Your task to perform on an android device: Open the calendar and show me this week's events? Image 0: 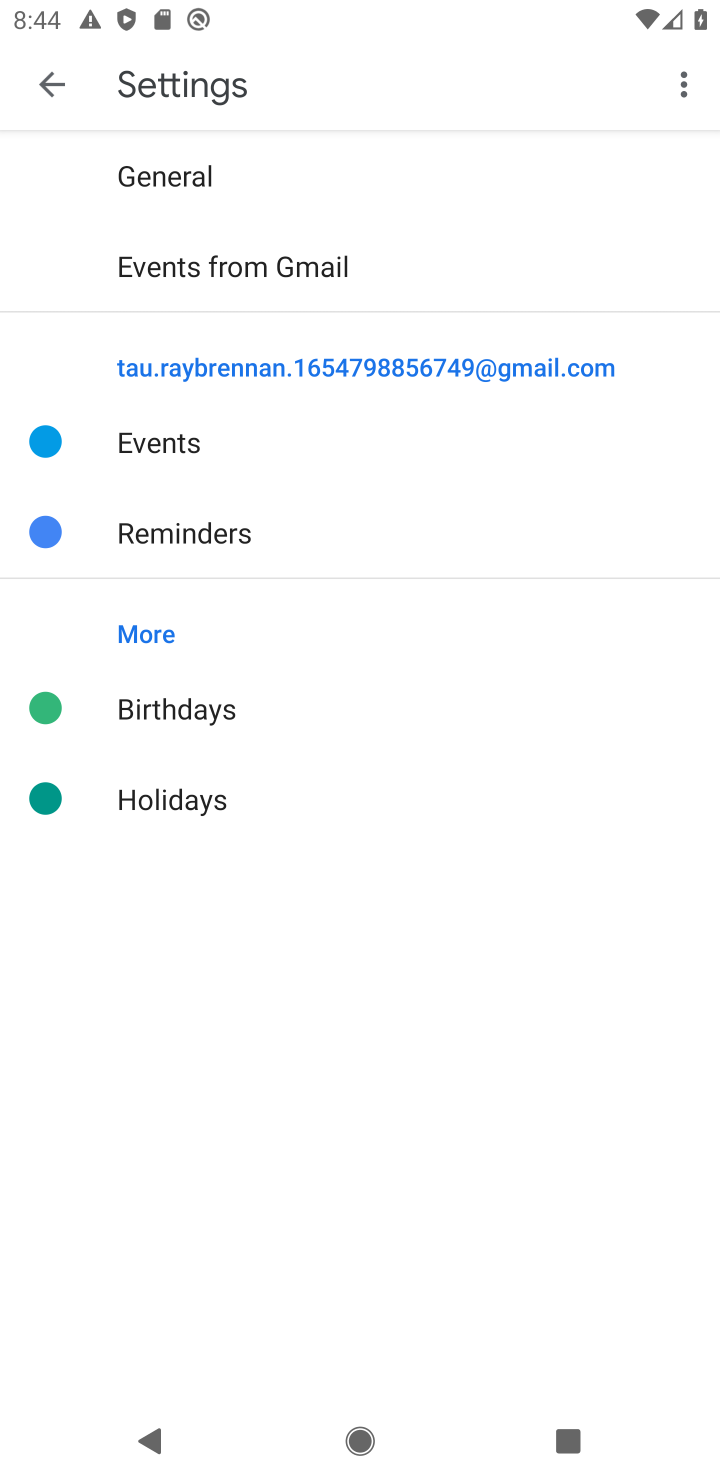
Step 0: press home button
Your task to perform on an android device: Open the calendar and show me this week's events? Image 1: 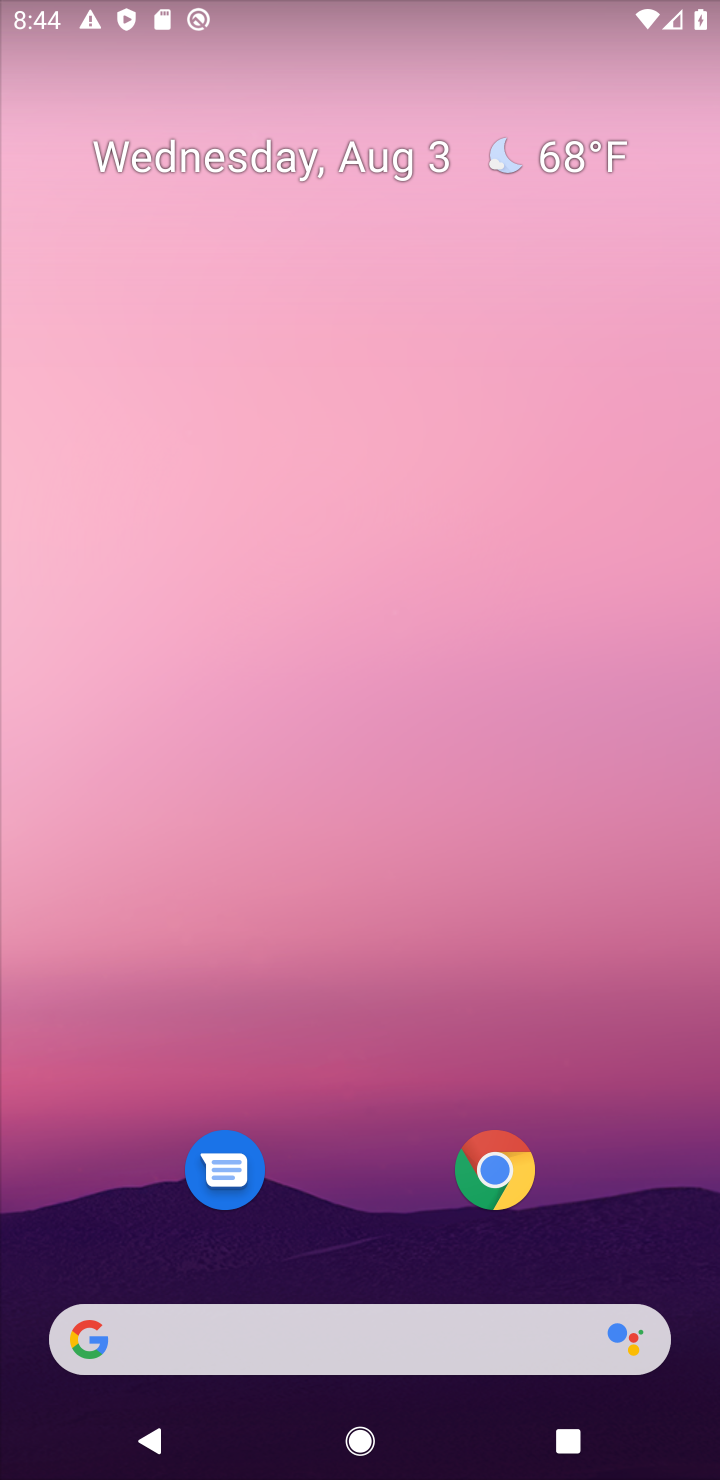
Step 1: drag from (609, 1251) to (535, 277)
Your task to perform on an android device: Open the calendar and show me this week's events? Image 2: 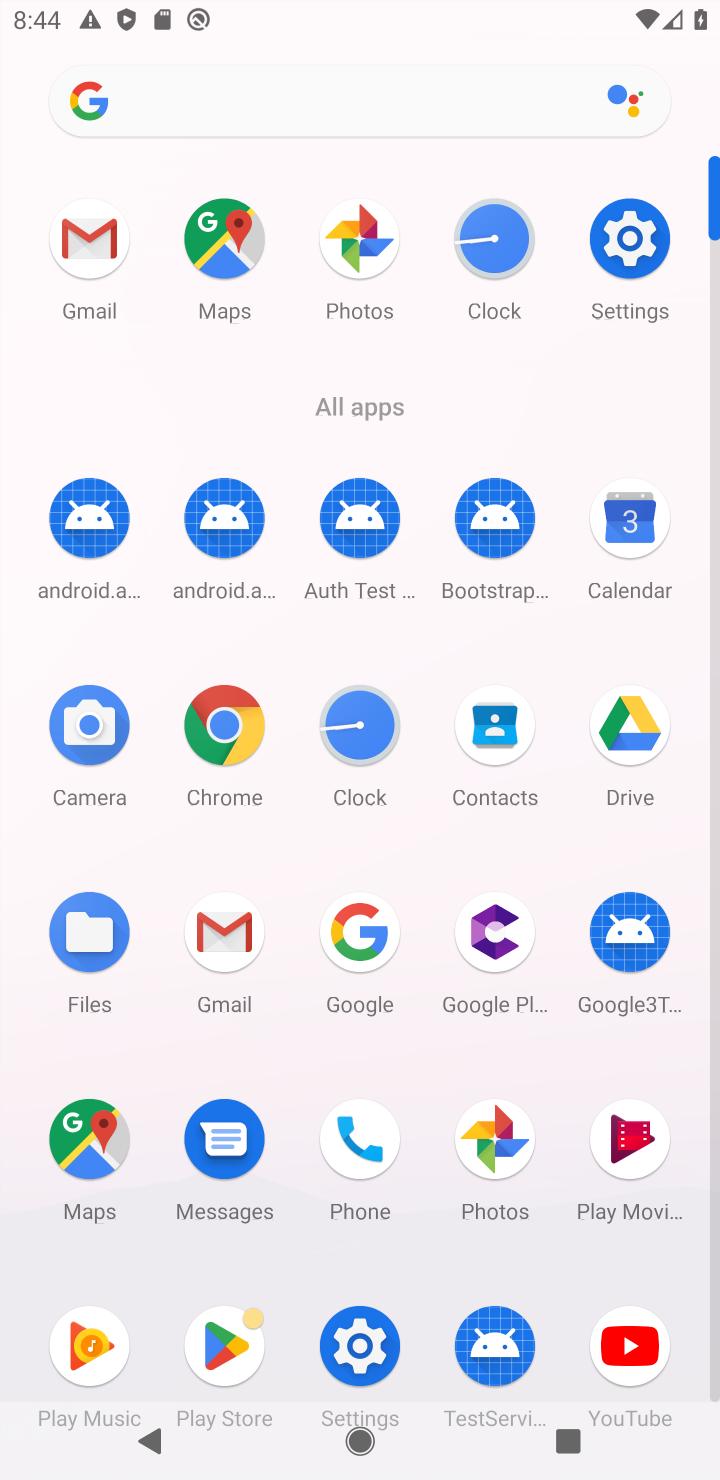
Step 2: click (625, 523)
Your task to perform on an android device: Open the calendar and show me this week's events? Image 3: 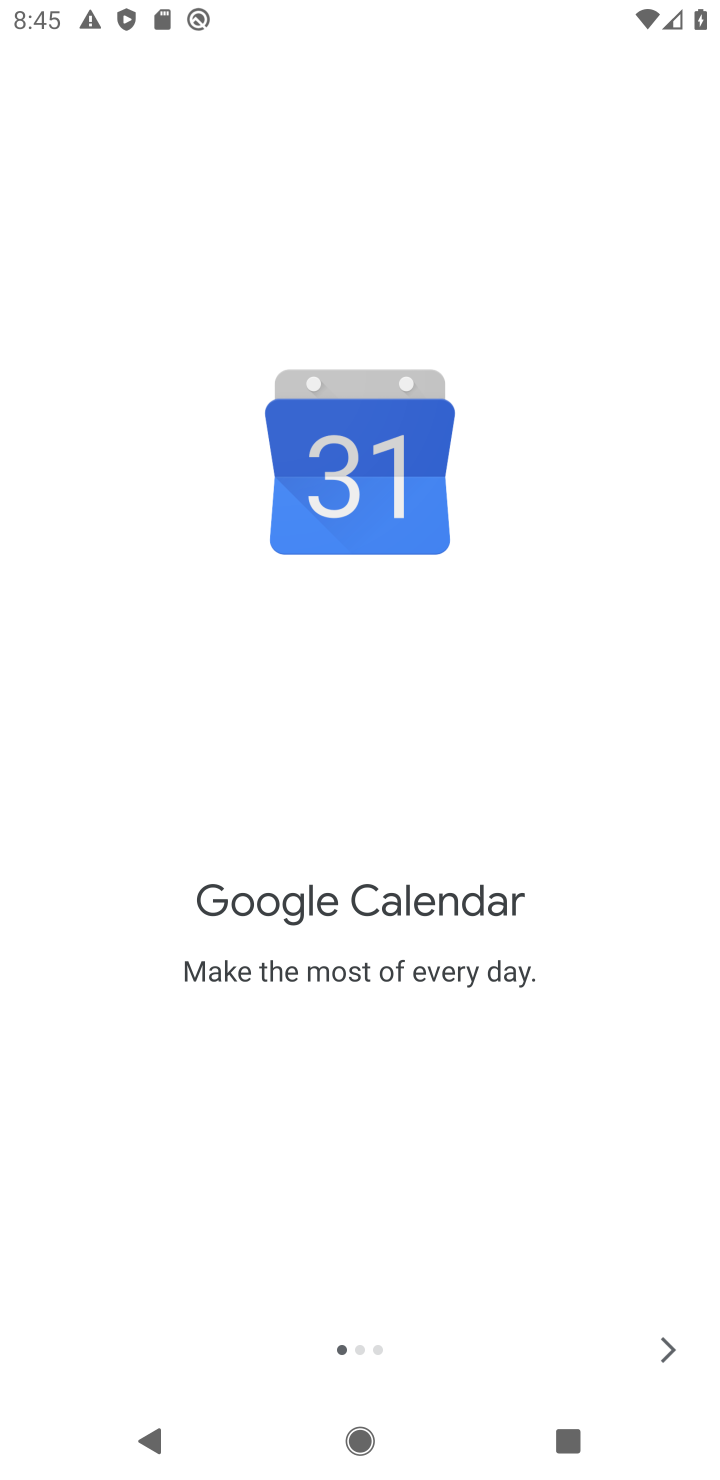
Step 3: click (659, 1347)
Your task to perform on an android device: Open the calendar and show me this week's events? Image 4: 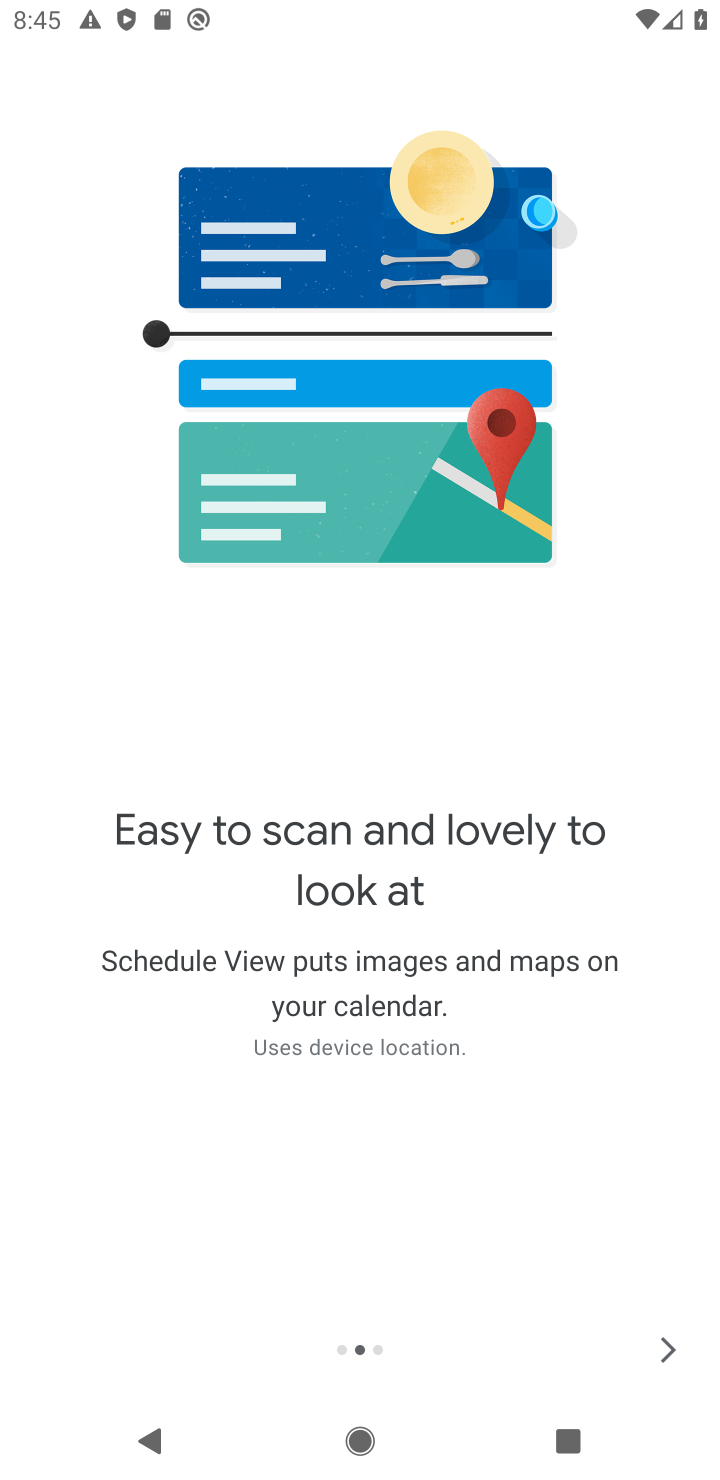
Step 4: click (659, 1347)
Your task to perform on an android device: Open the calendar and show me this week's events? Image 5: 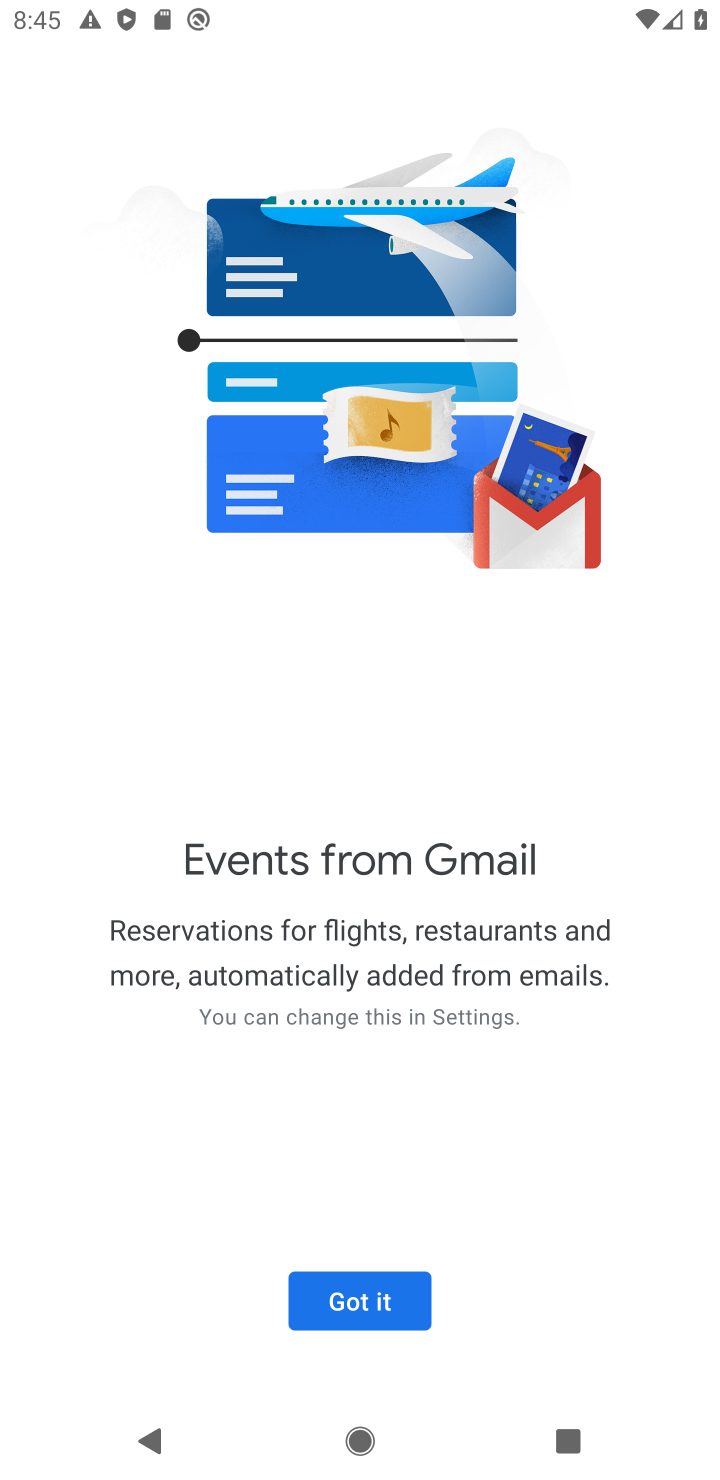
Step 5: click (344, 1297)
Your task to perform on an android device: Open the calendar and show me this week's events? Image 6: 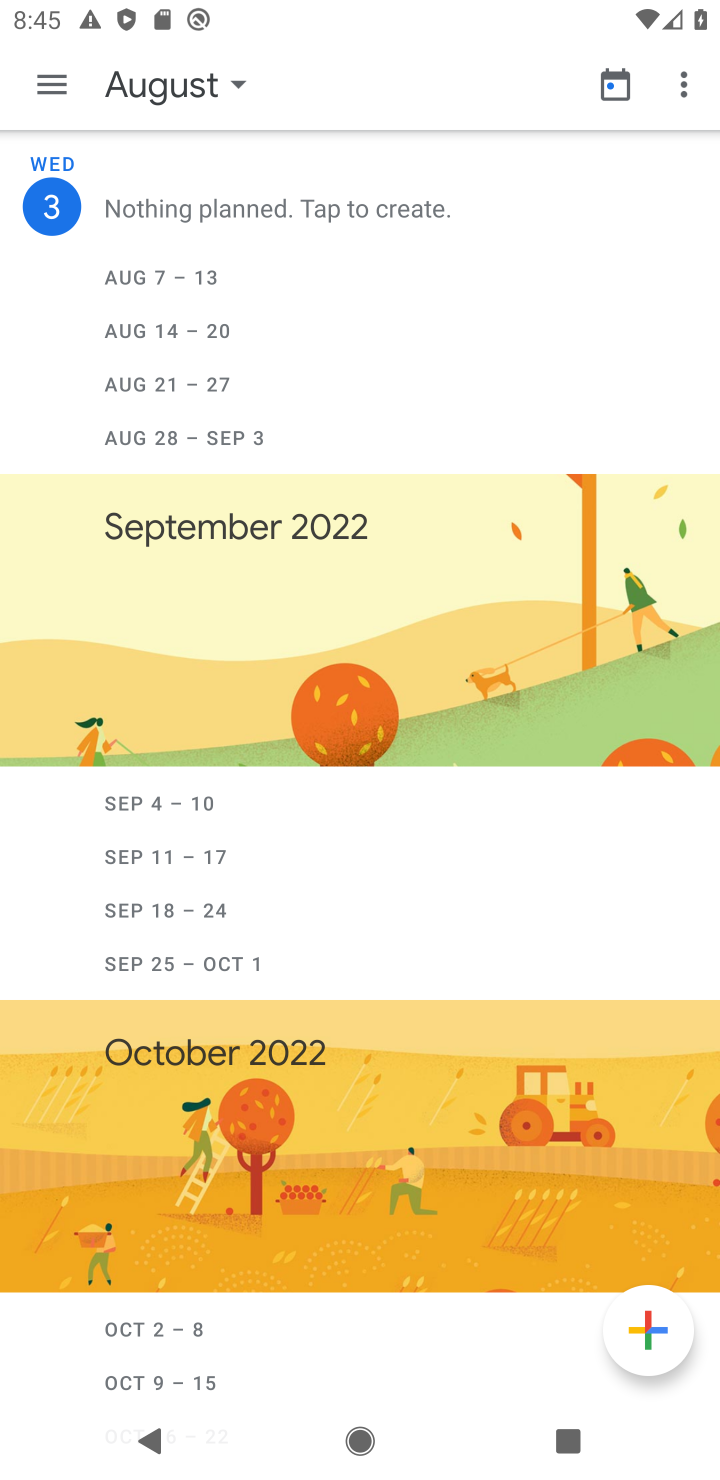
Step 6: click (52, 95)
Your task to perform on an android device: Open the calendar and show me this week's events? Image 7: 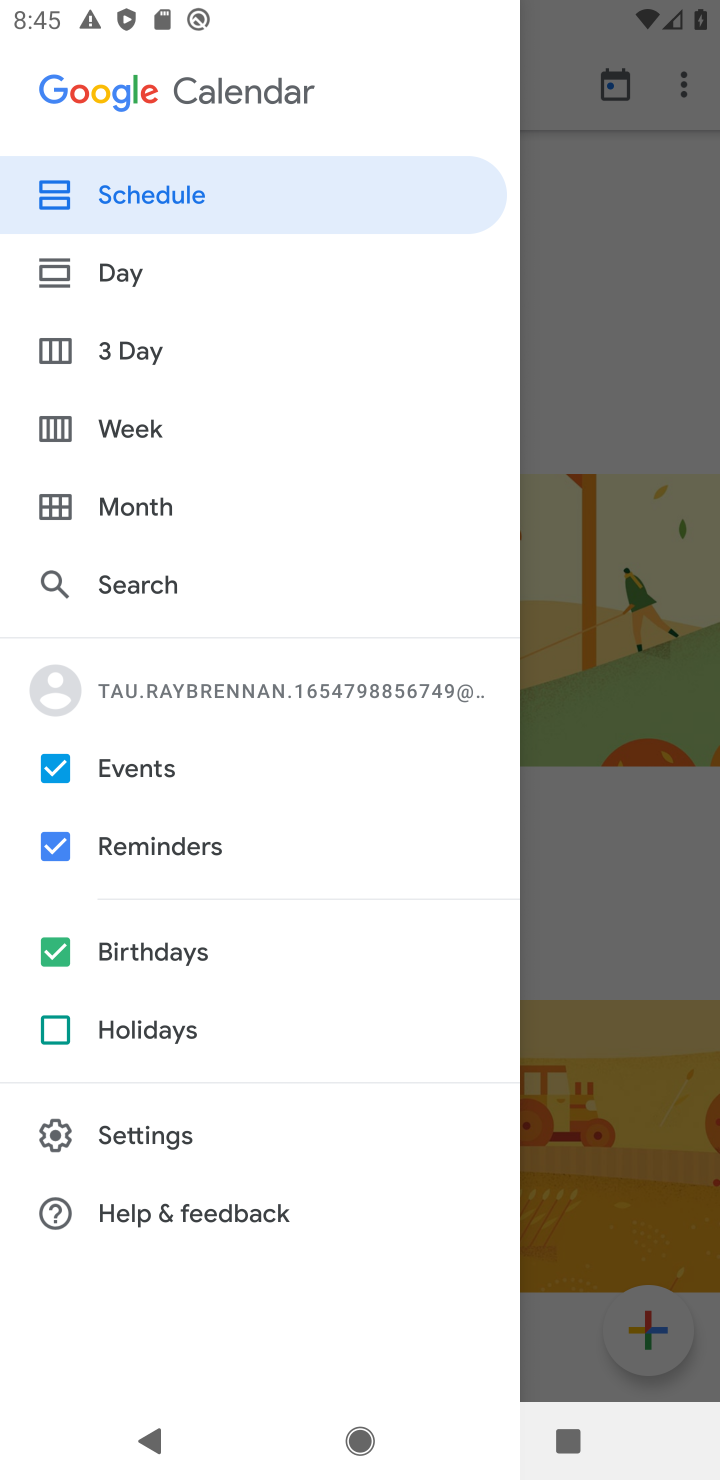
Step 7: click (139, 428)
Your task to perform on an android device: Open the calendar and show me this week's events? Image 8: 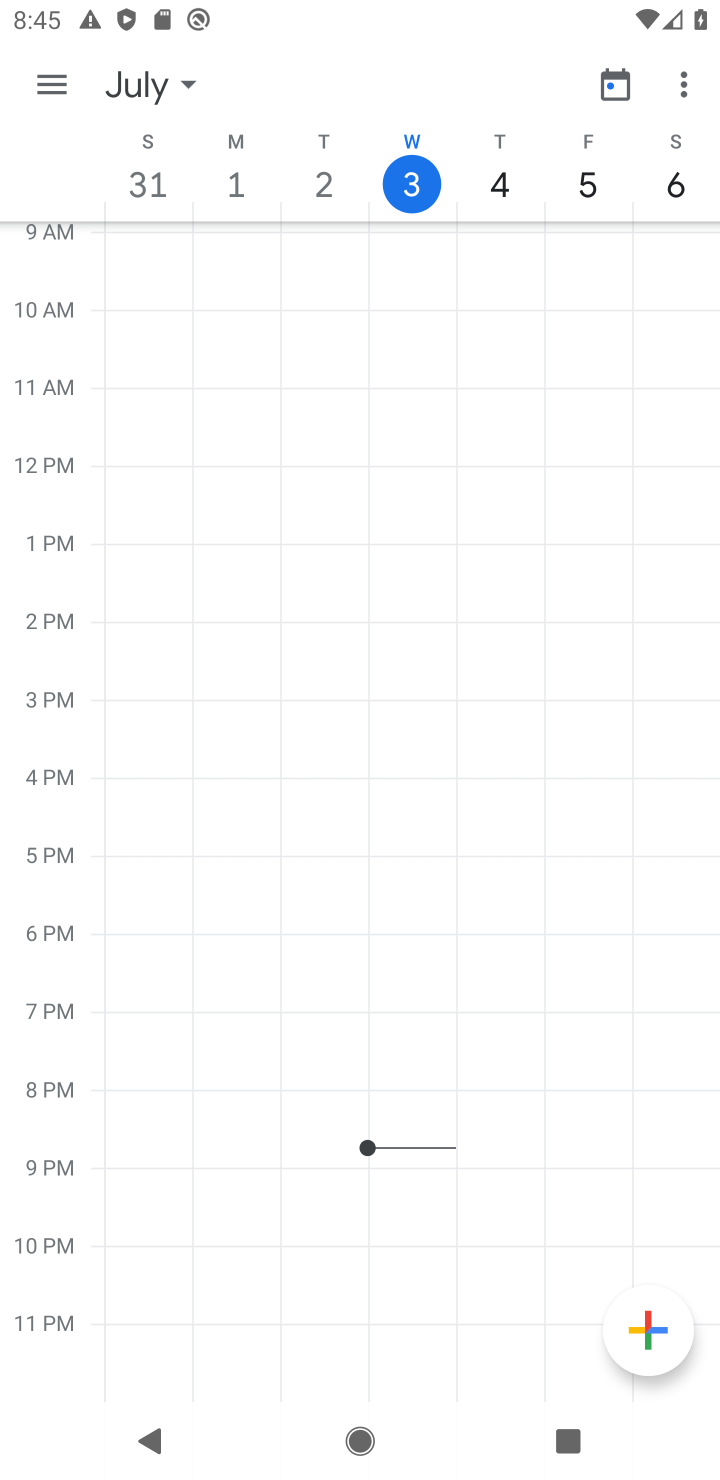
Step 8: drag from (298, 298) to (316, 895)
Your task to perform on an android device: Open the calendar and show me this week's events? Image 9: 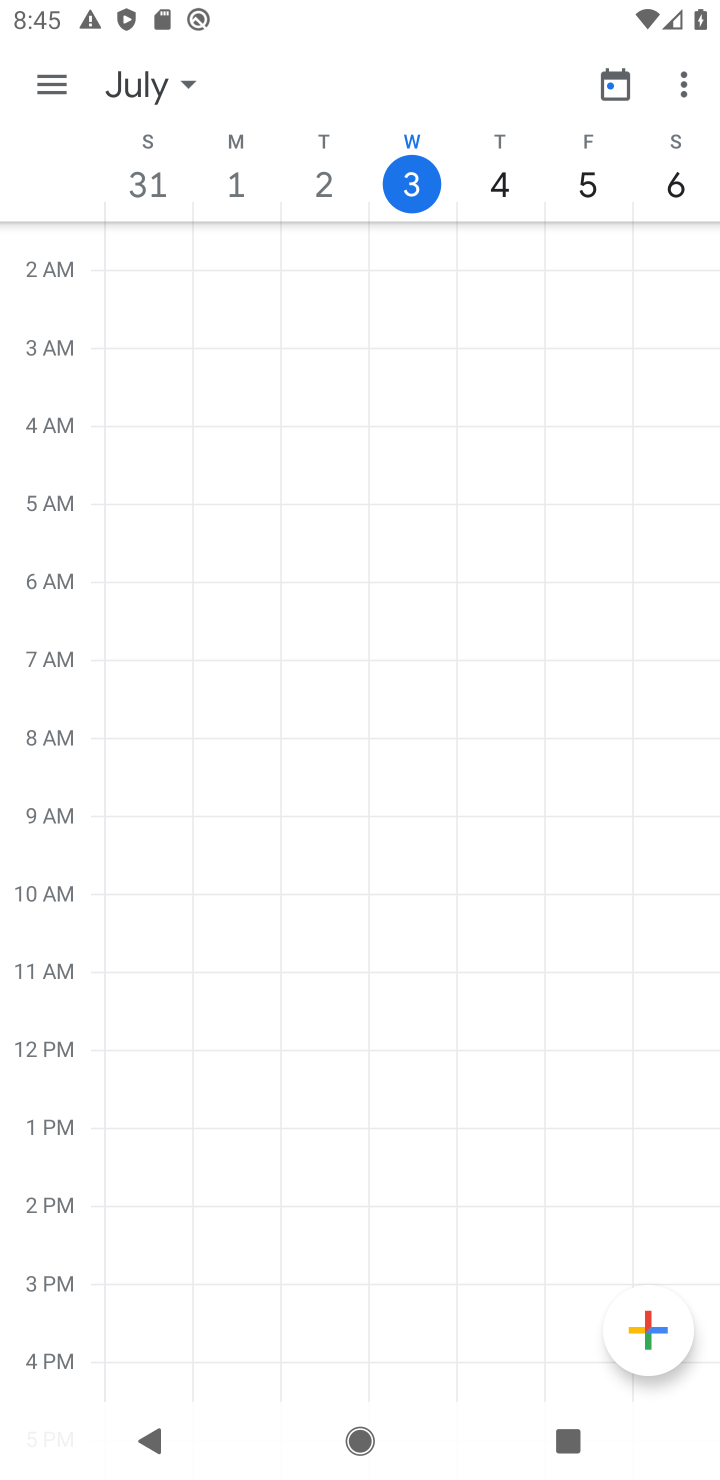
Step 9: click (372, 376)
Your task to perform on an android device: Open the calendar and show me this week's events? Image 10: 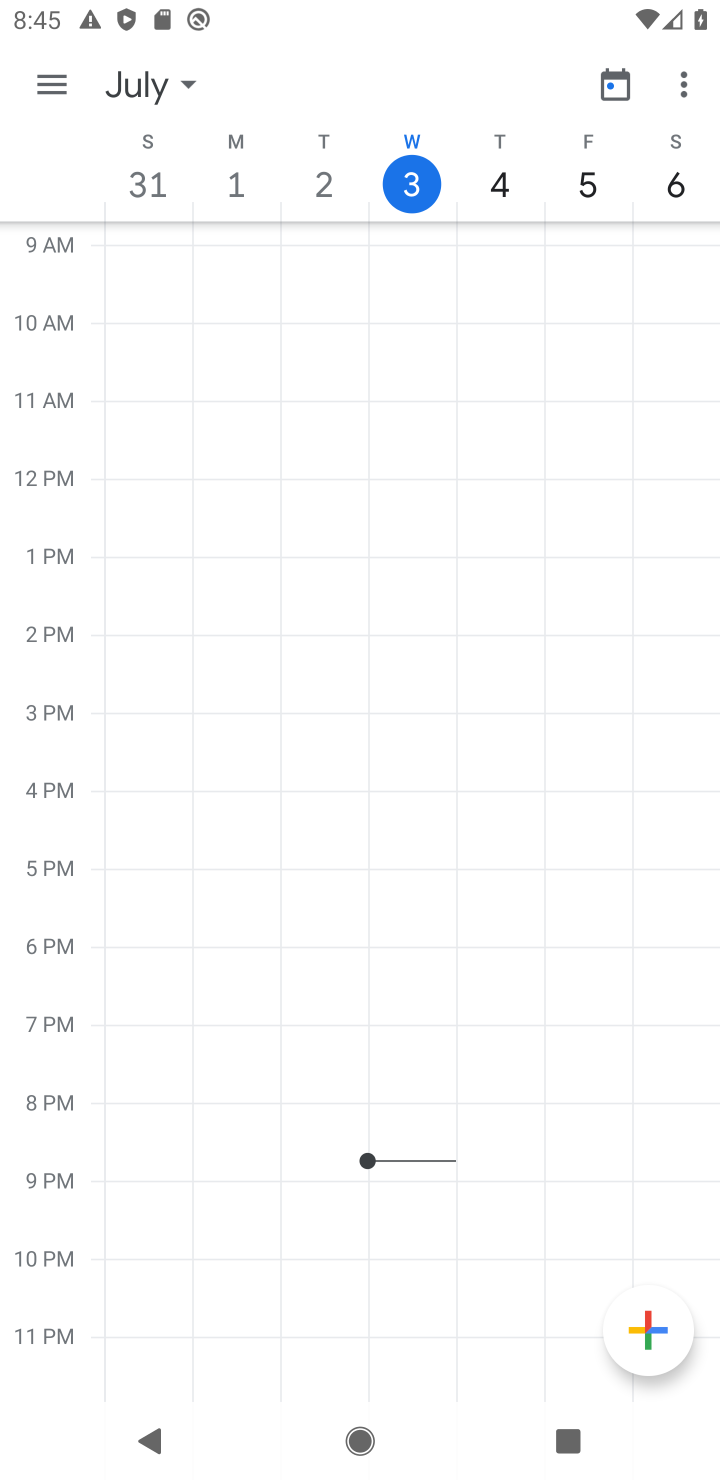
Step 10: task complete